Your task to perform on an android device: toggle improve location accuracy Image 0: 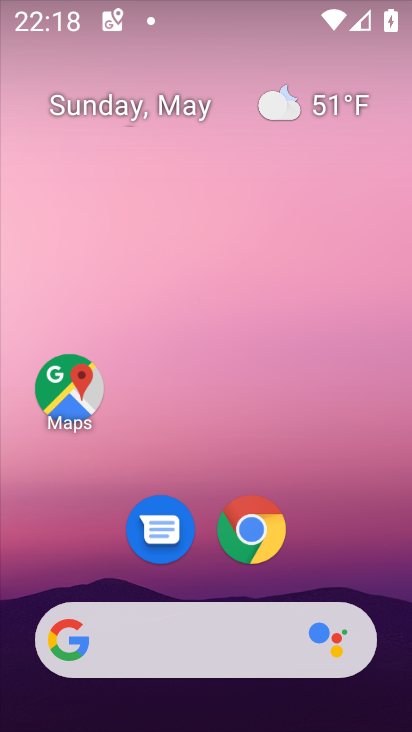
Step 0: drag from (355, 637) to (281, 1)
Your task to perform on an android device: toggle improve location accuracy Image 1: 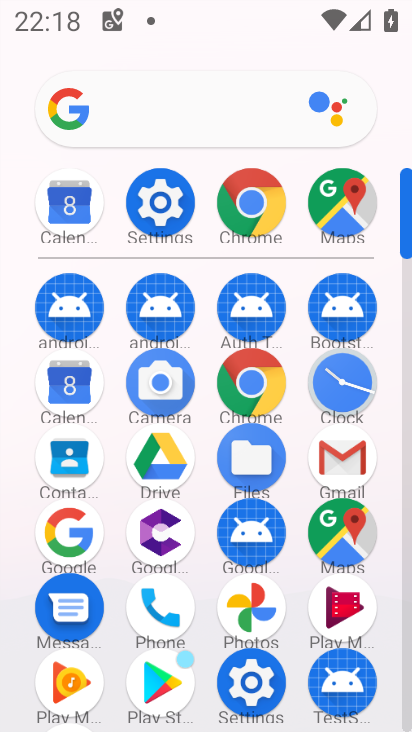
Step 1: click (257, 692)
Your task to perform on an android device: toggle improve location accuracy Image 2: 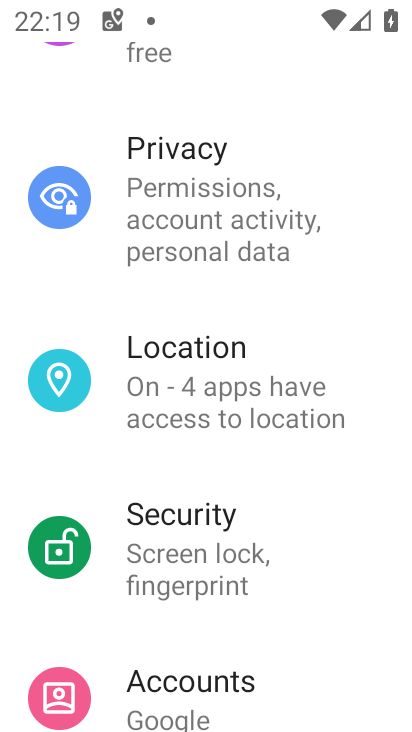
Step 2: drag from (259, 720) to (257, 604)
Your task to perform on an android device: toggle improve location accuracy Image 3: 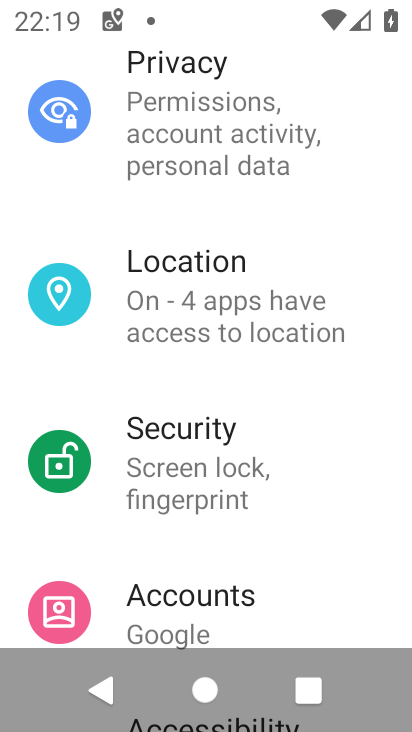
Step 3: click (256, 339)
Your task to perform on an android device: toggle improve location accuracy Image 4: 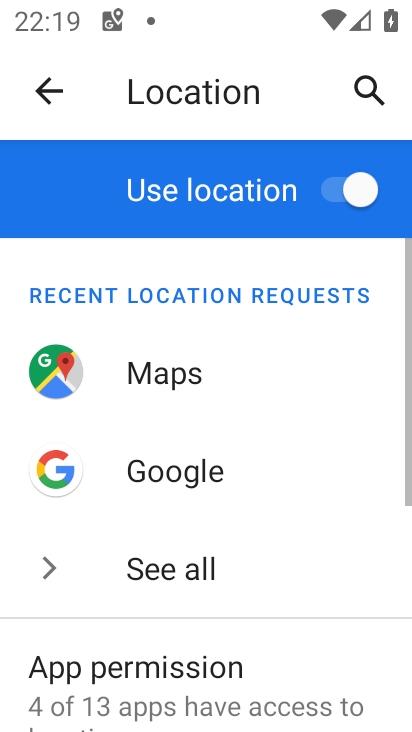
Step 4: drag from (260, 663) to (248, 295)
Your task to perform on an android device: toggle improve location accuracy Image 5: 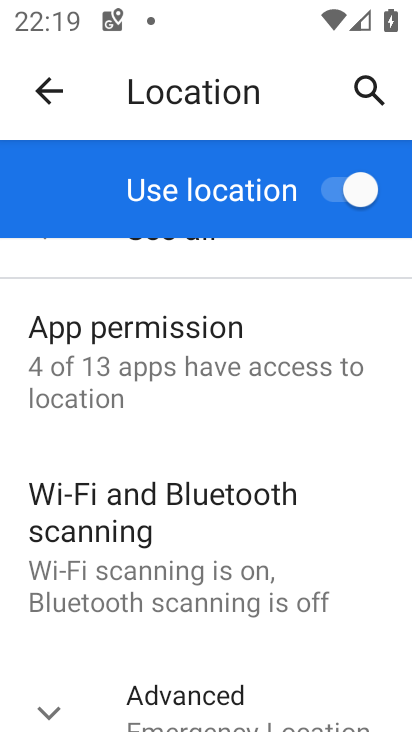
Step 5: drag from (241, 704) to (229, 438)
Your task to perform on an android device: toggle improve location accuracy Image 6: 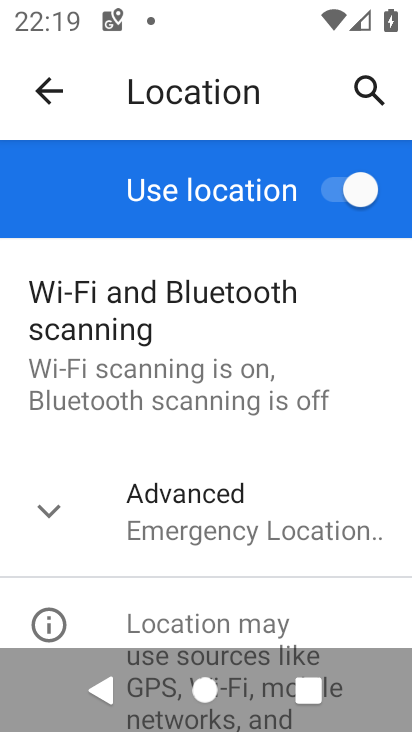
Step 6: click (242, 532)
Your task to perform on an android device: toggle improve location accuracy Image 7: 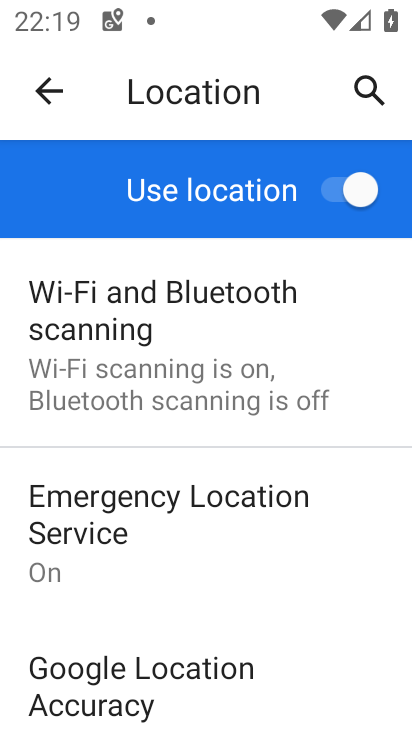
Step 7: drag from (235, 649) to (237, 140)
Your task to perform on an android device: toggle improve location accuracy Image 8: 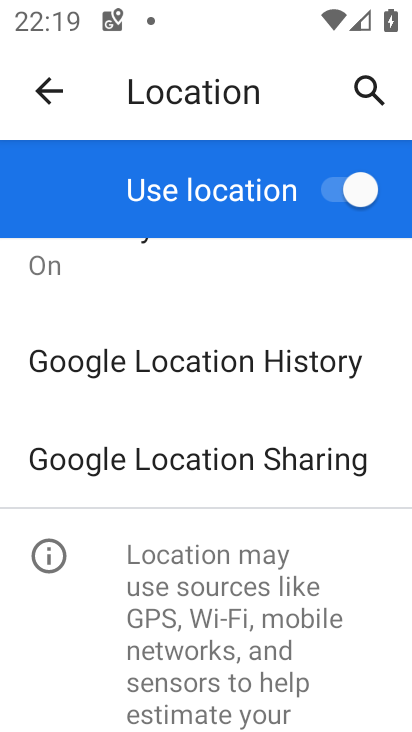
Step 8: drag from (267, 343) to (296, 675)
Your task to perform on an android device: toggle improve location accuracy Image 9: 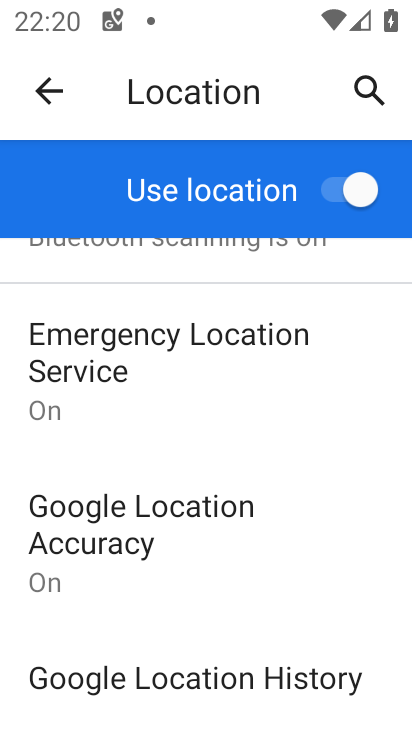
Step 9: click (219, 533)
Your task to perform on an android device: toggle improve location accuracy Image 10: 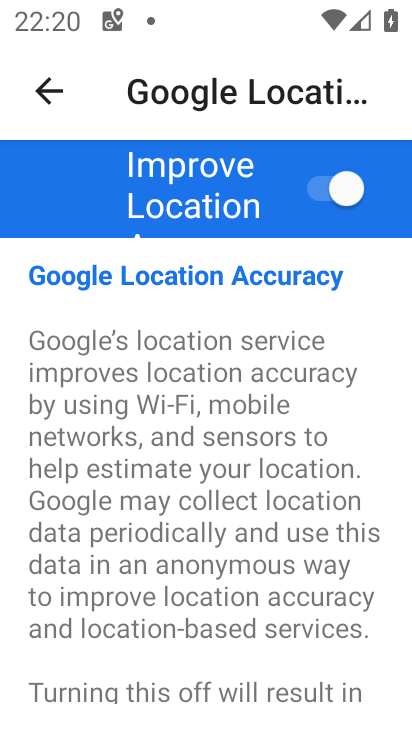
Step 10: click (328, 191)
Your task to perform on an android device: toggle improve location accuracy Image 11: 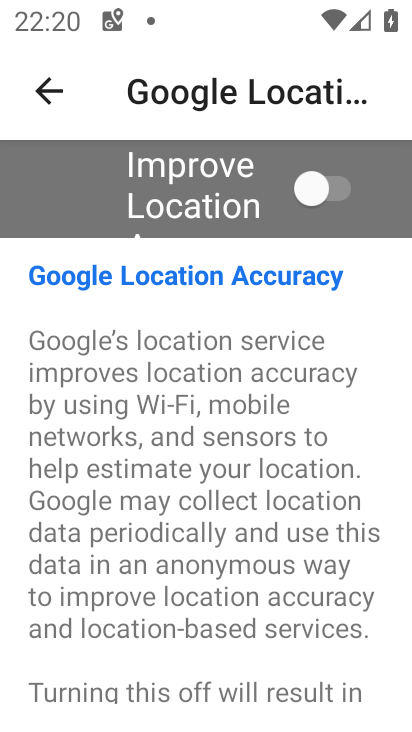
Step 11: task complete